Your task to perform on an android device: Open Maps and search for coffee Image 0: 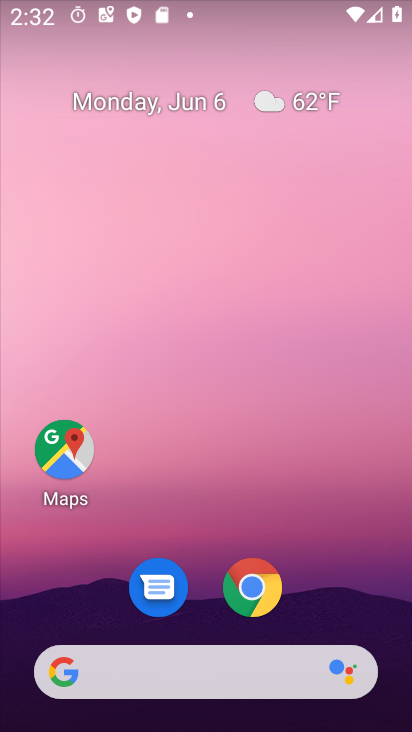
Step 0: drag from (319, 563) to (277, 7)
Your task to perform on an android device: Open Maps and search for coffee Image 1: 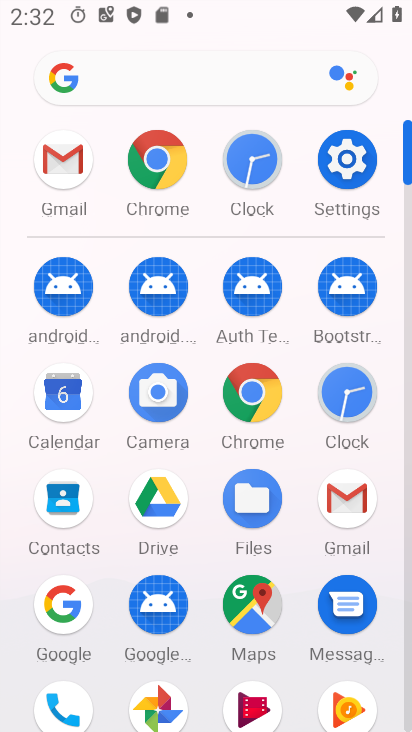
Step 1: drag from (12, 624) to (13, 227)
Your task to perform on an android device: Open Maps and search for coffee Image 2: 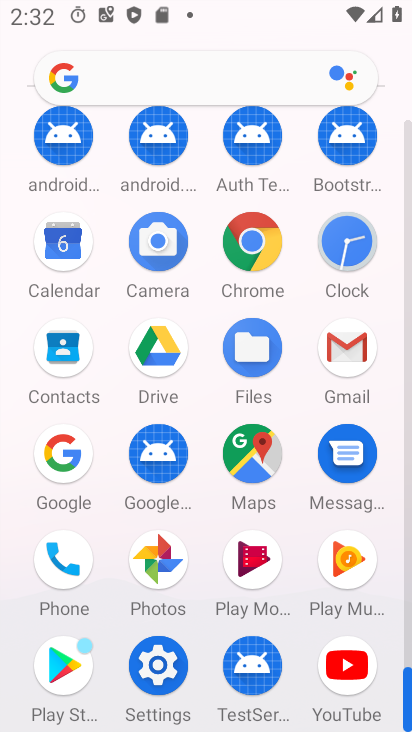
Step 2: click (251, 449)
Your task to perform on an android device: Open Maps and search for coffee Image 3: 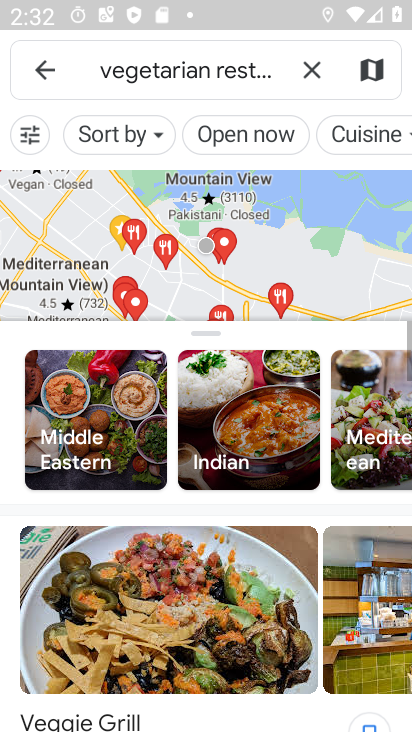
Step 3: click (317, 70)
Your task to perform on an android device: Open Maps and search for coffee Image 4: 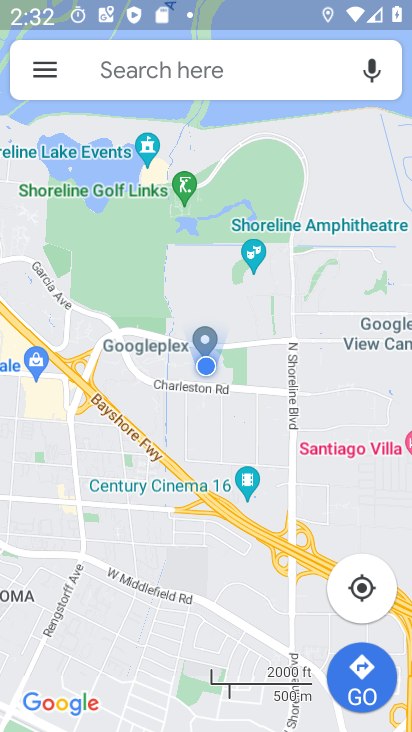
Step 4: click (261, 77)
Your task to perform on an android device: Open Maps and search for coffee Image 5: 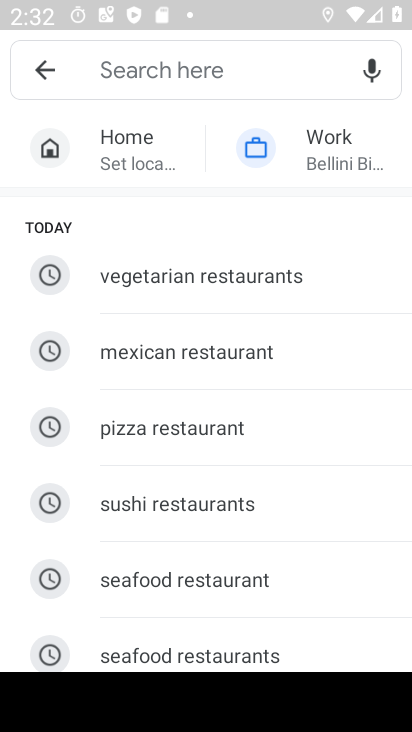
Step 5: type "coffee"
Your task to perform on an android device: Open Maps and search for coffee Image 6: 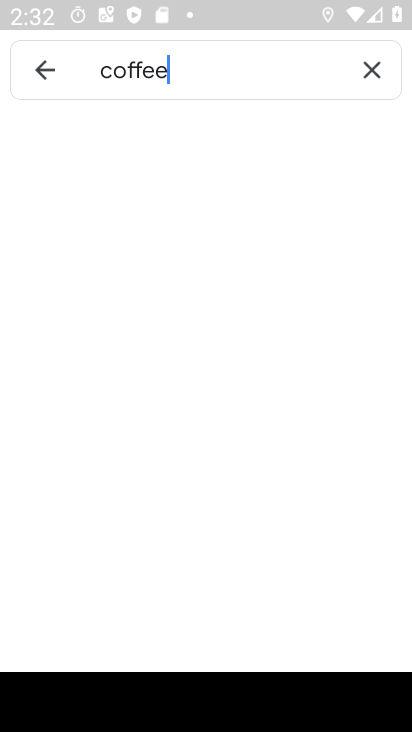
Step 6: type ""
Your task to perform on an android device: Open Maps and search for coffee Image 7: 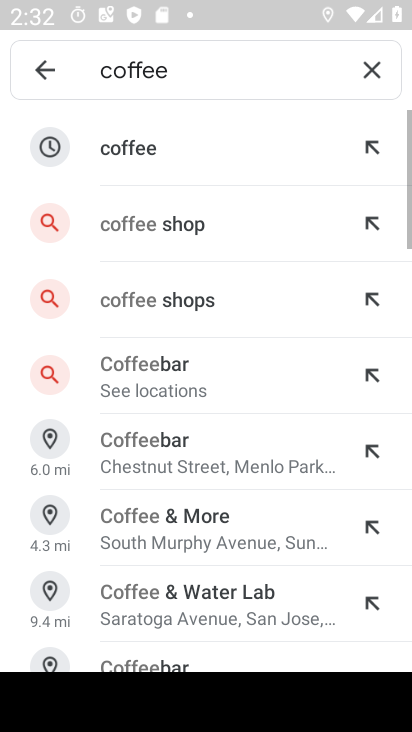
Step 7: click (199, 162)
Your task to perform on an android device: Open Maps and search for coffee Image 8: 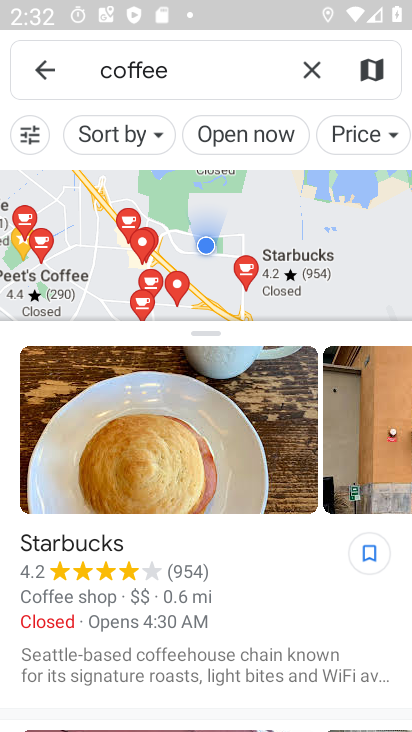
Step 8: task complete